Your task to perform on an android device: install app "Gmail" Image 0: 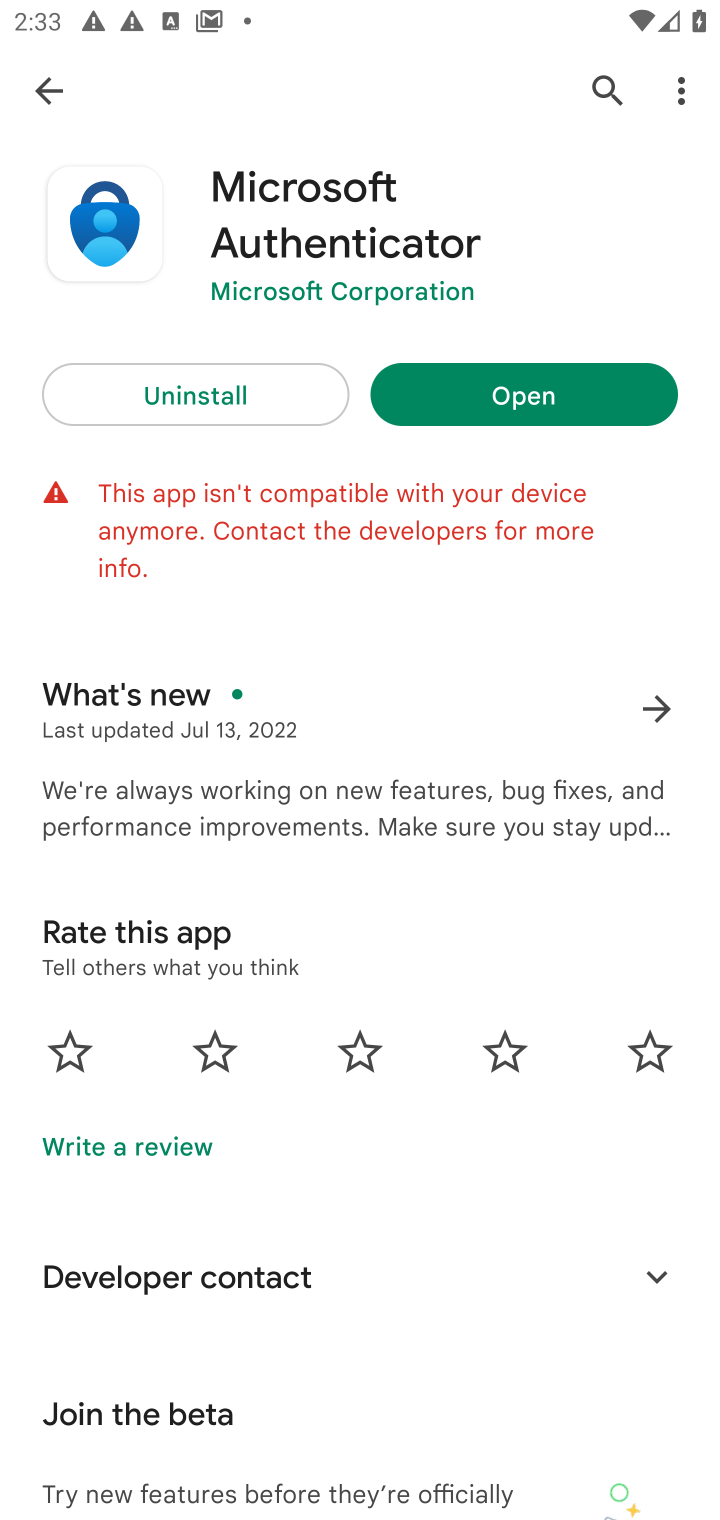
Step 0: press home button
Your task to perform on an android device: install app "Gmail" Image 1: 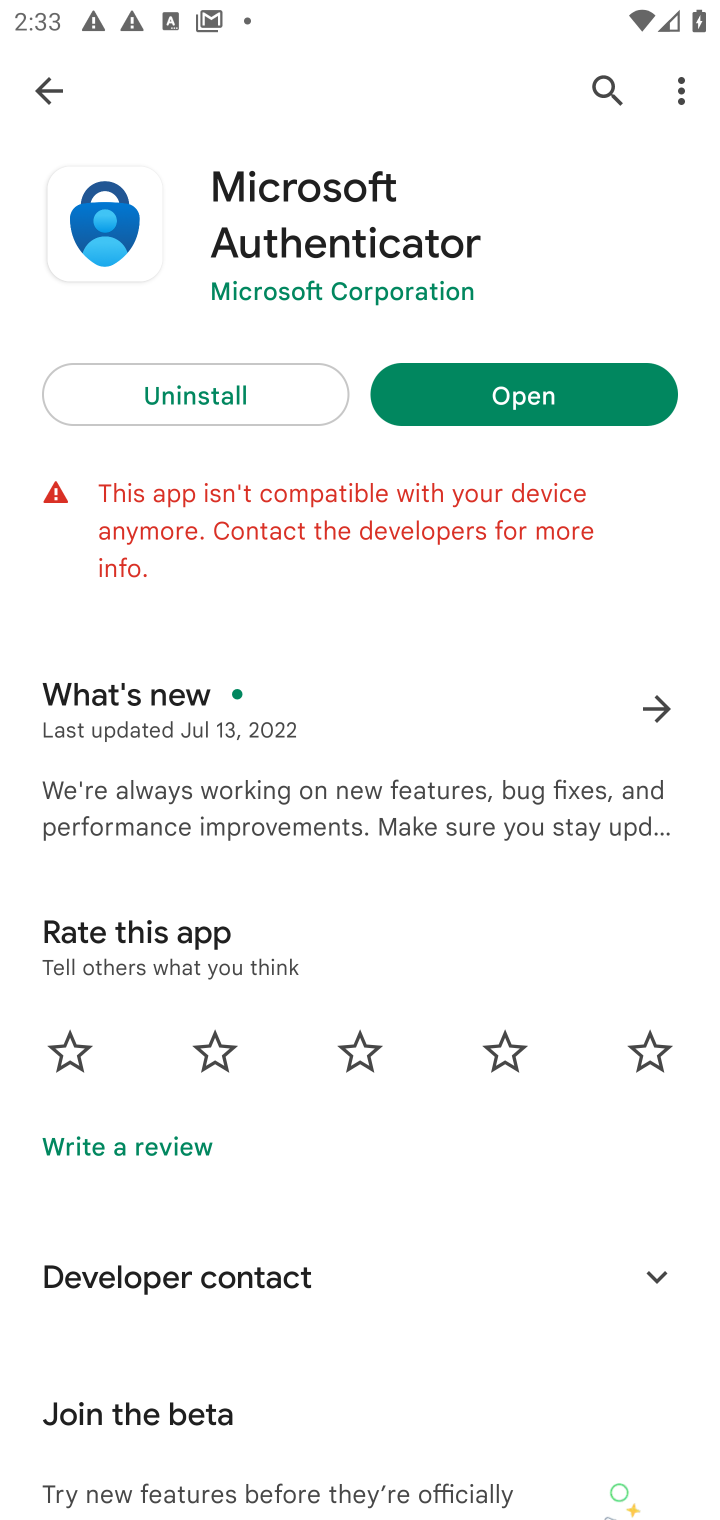
Step 1: press home button
Your task to perform on an android device: install app "Gmail" Image 2: 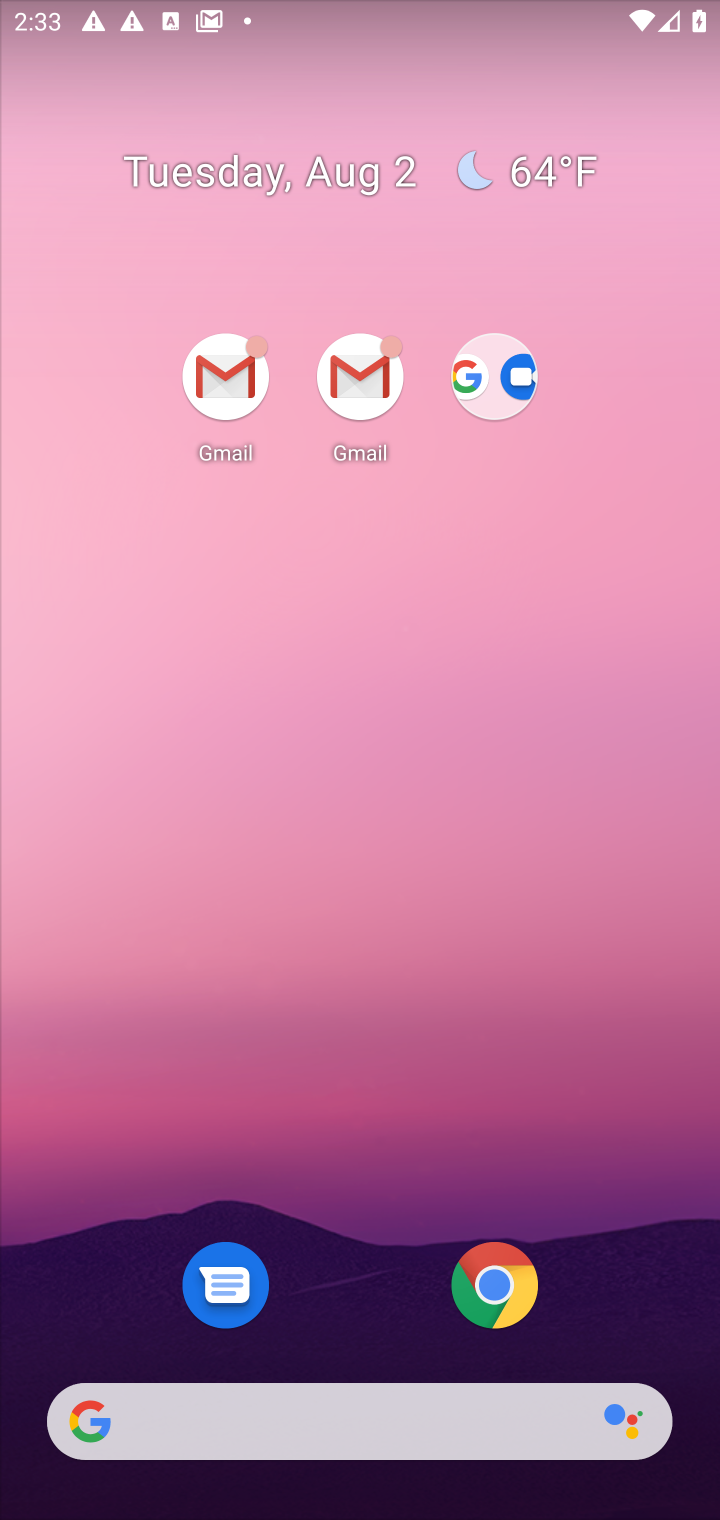
Step 2: drag from (630, 1340) to (715, 222)
Your task to perform on an android device: install app "Gmail" Image 3: 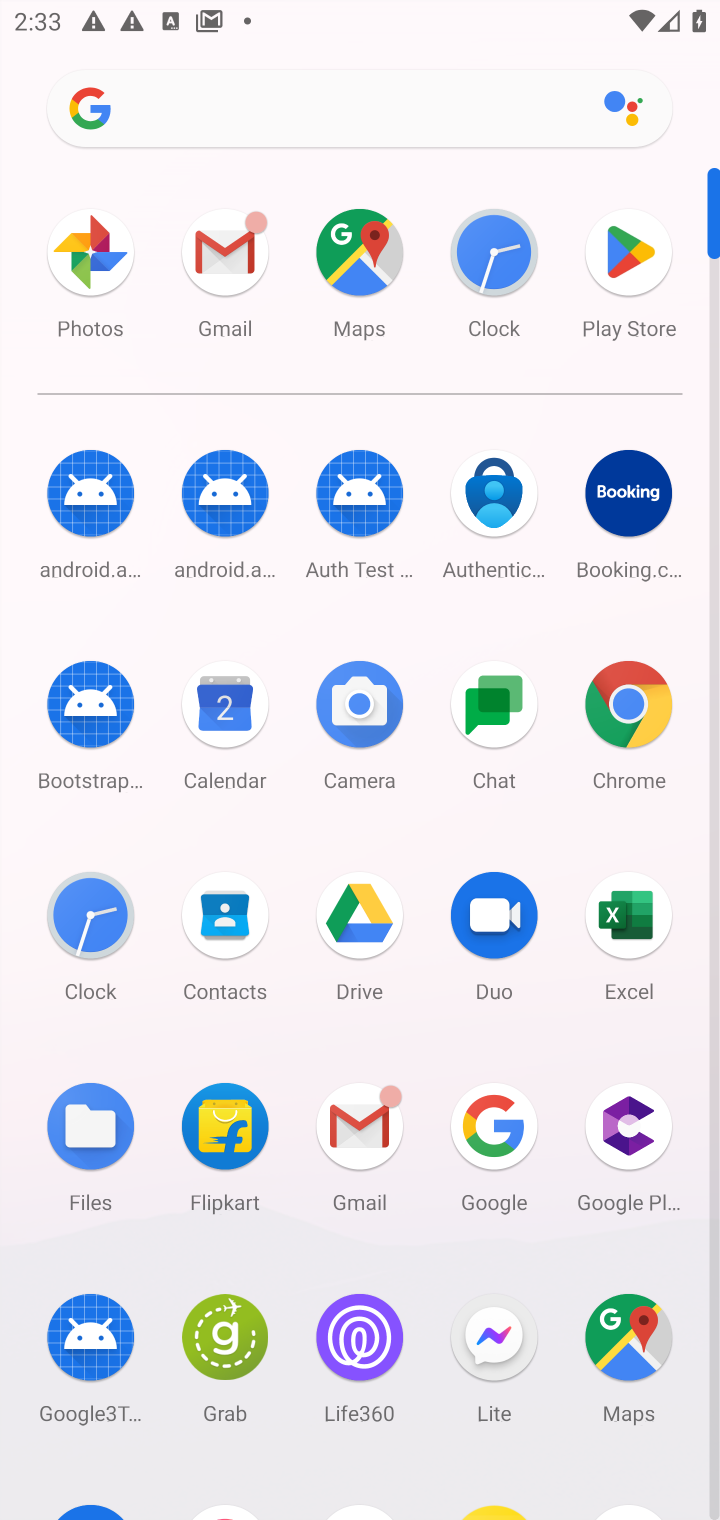
Step 3: drag from (436, 1142) to (522, 505)
Your task to perform on an android device: install app "Gmail" Image 4: 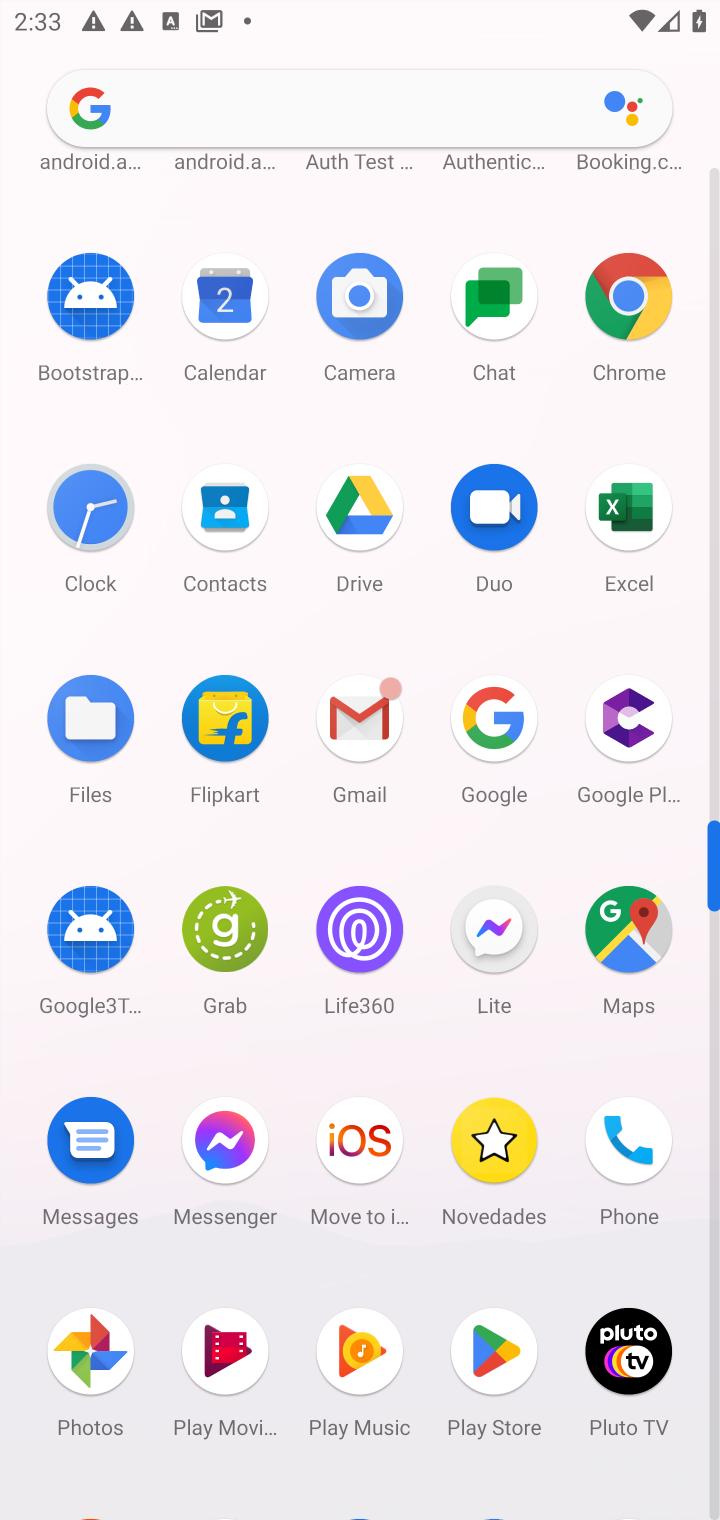
Step 4: click (478, 1328)
Your task to perform on an android device: install app "Gmail" Image 5: 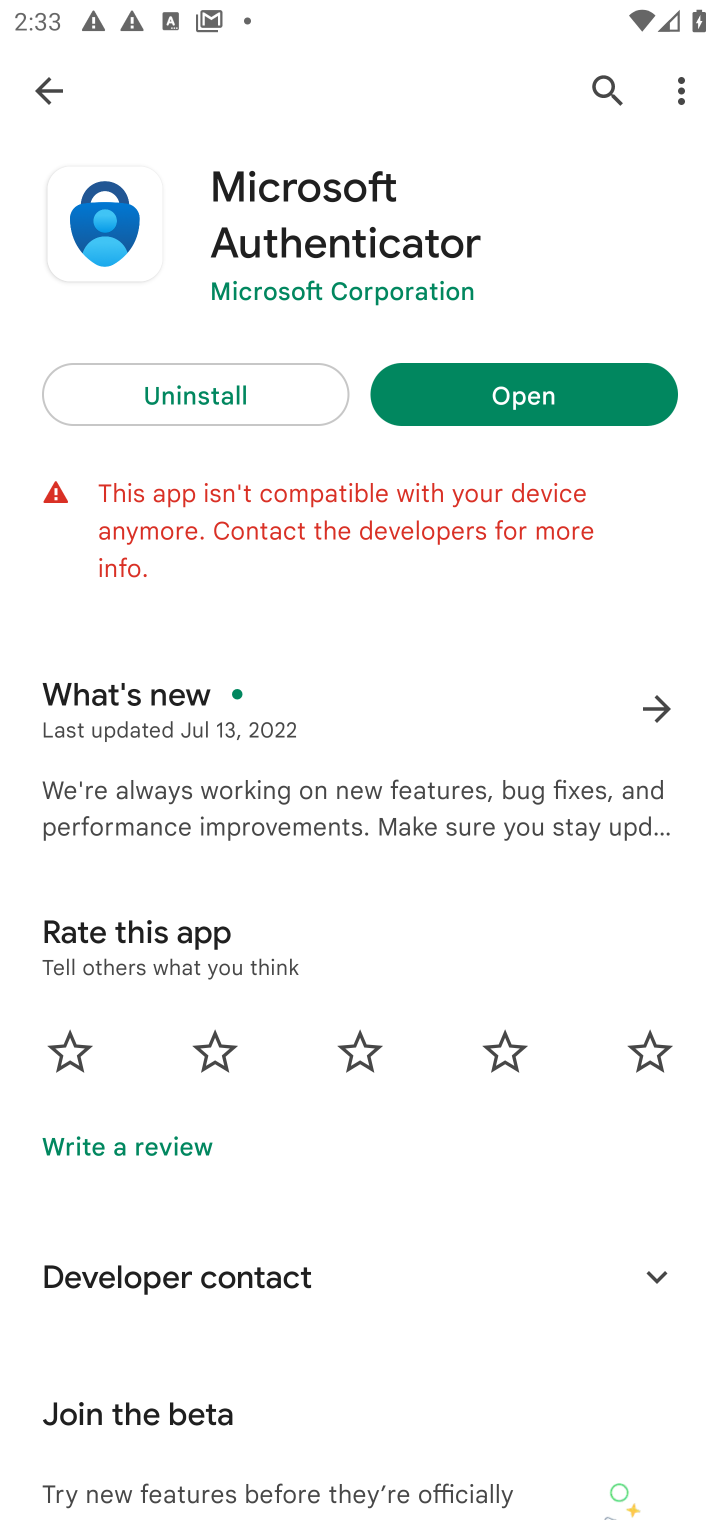
Step 5: click (588, 76)
Your task to perform on an android device: install app "Gmail" Image 6: 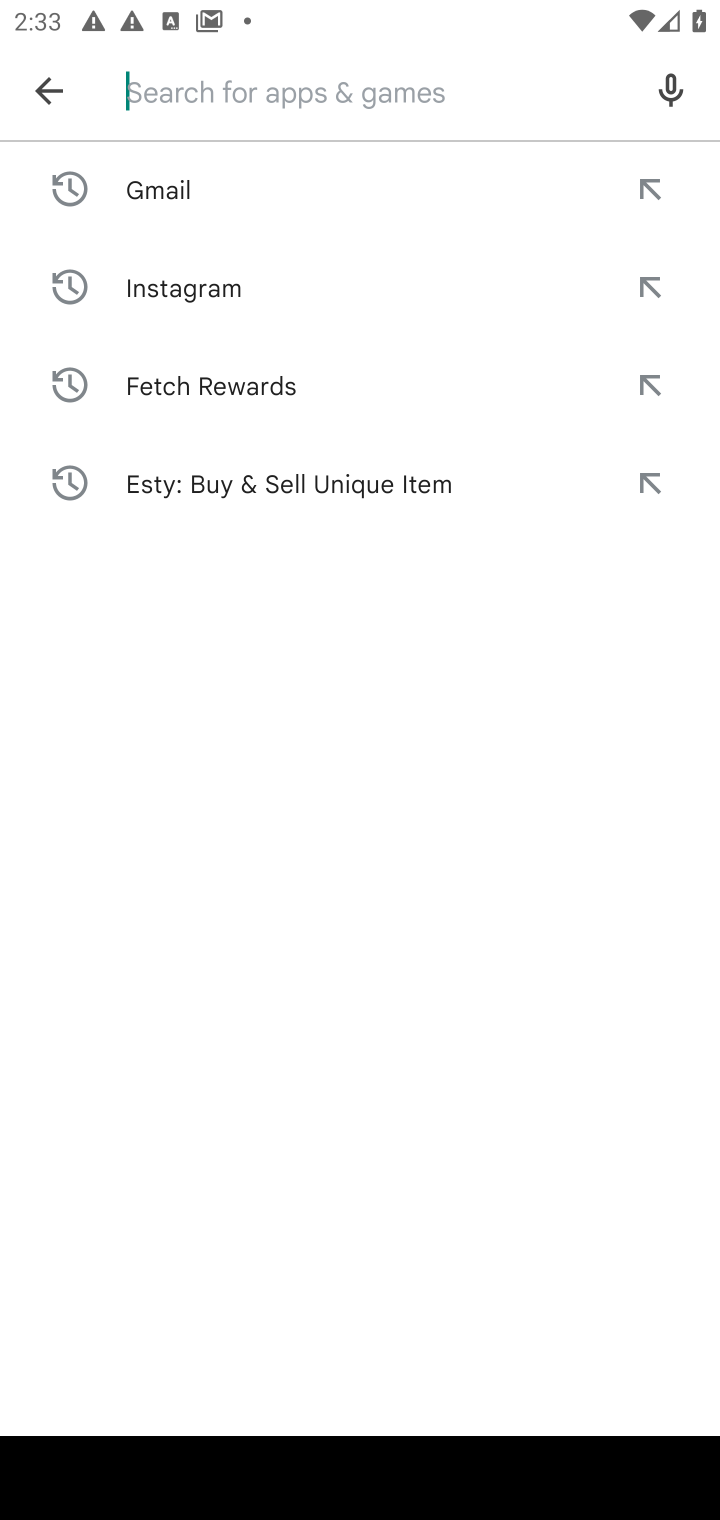
Step 6: type "Gmail"
Your task to perform on an android device: install app "Gmail" Image 7: 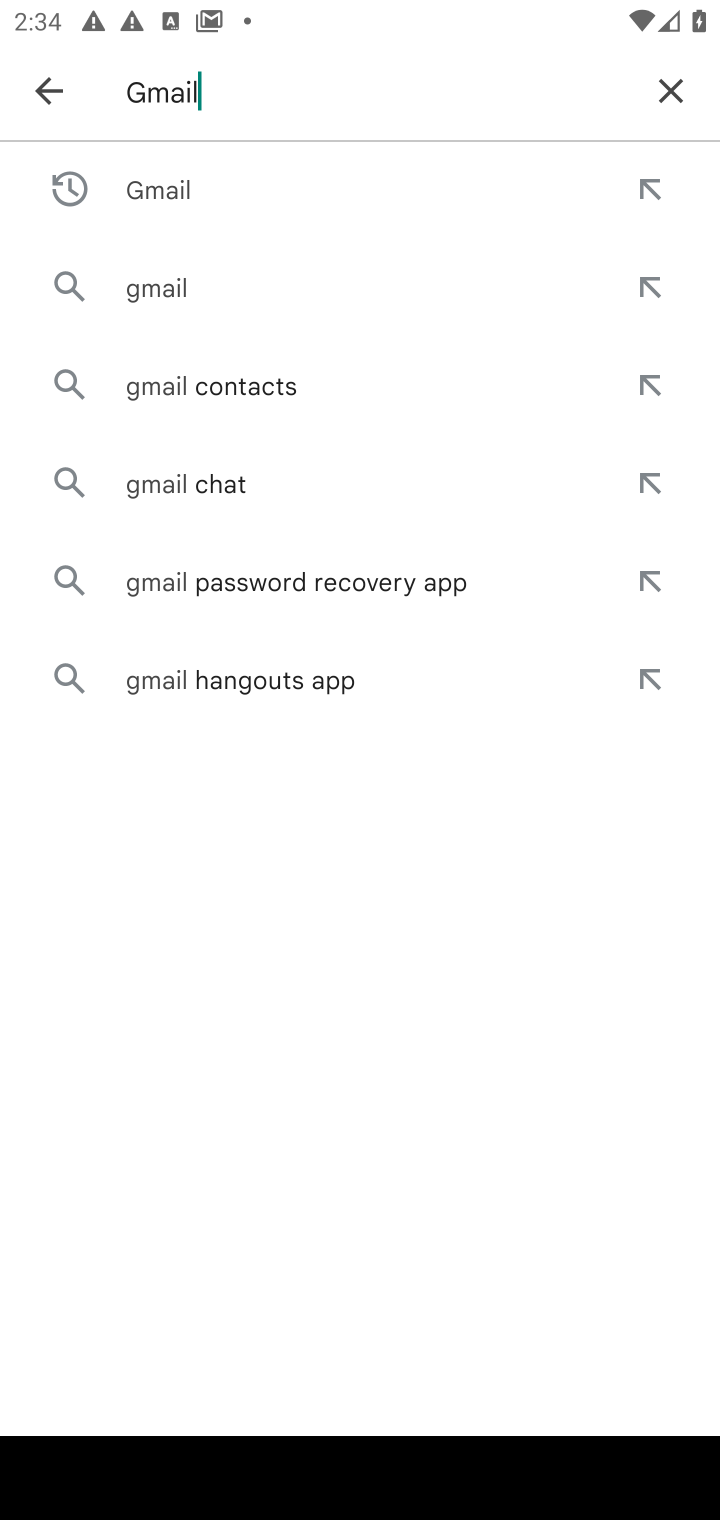
Step 7: click (208, 172)
Your task to perform on an android device: install app "Gmail" Image 8: 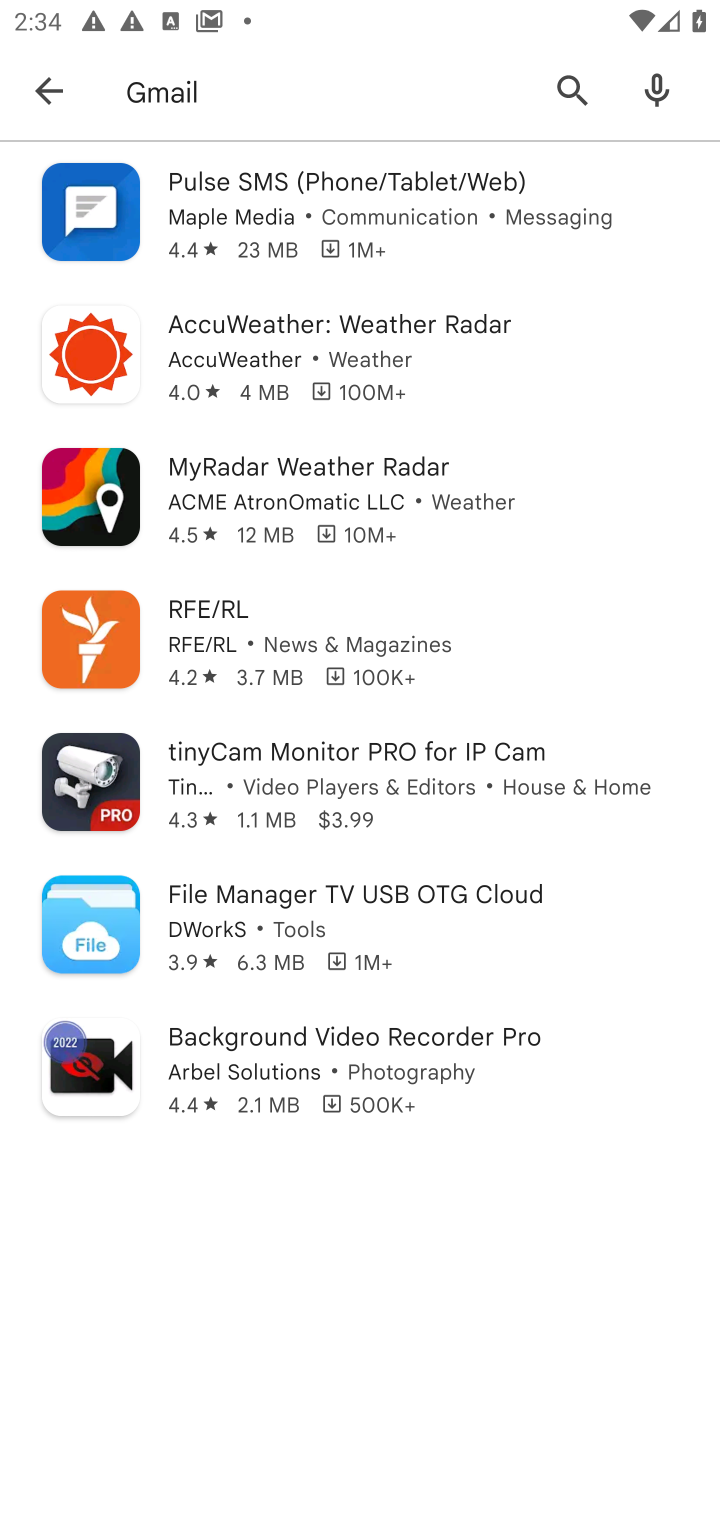
Step 8: task complete